Your task to perform on an android device: Clear the cart on costco. Search for beats solo 3 on costco, select the first entry, and add it to the cart. Image 0: 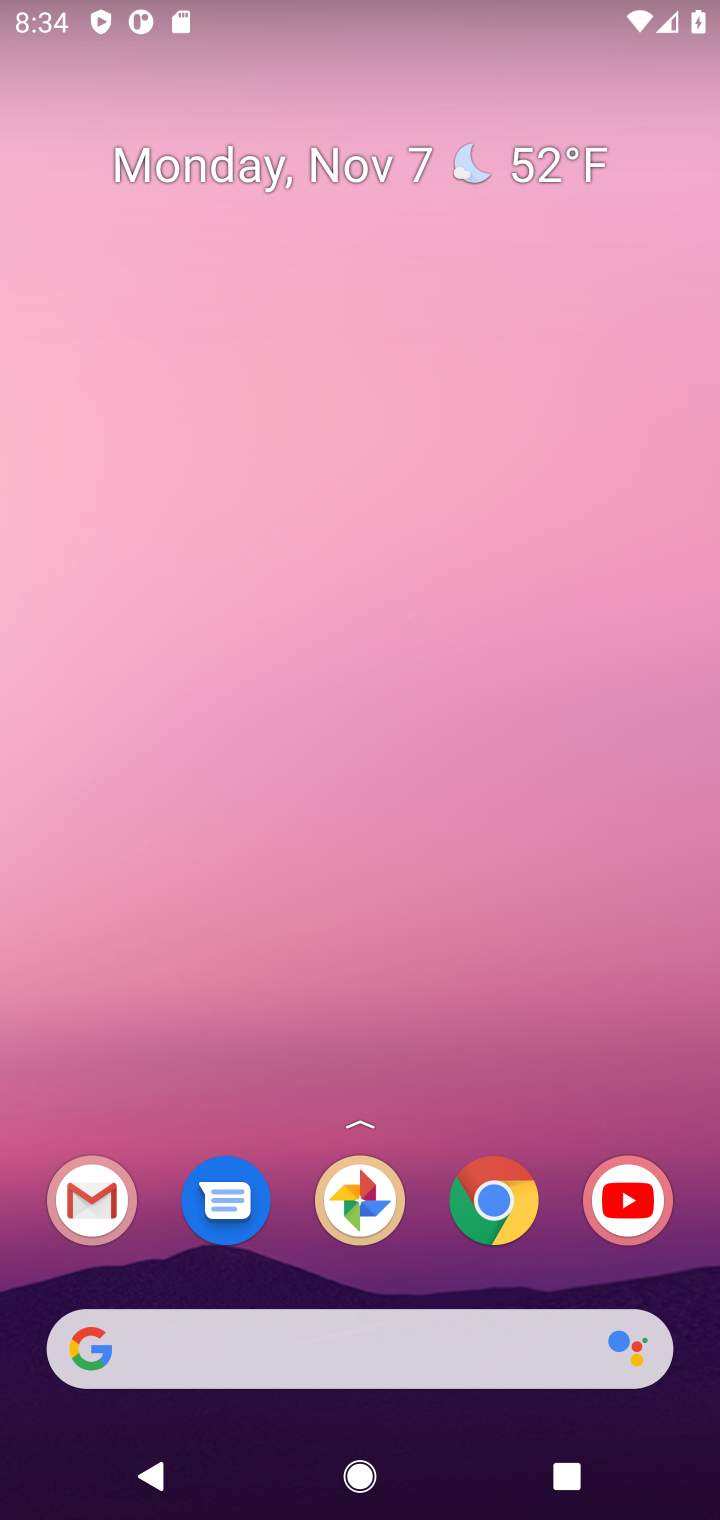
Step 0: click (493, 1208)
Your task to perform on an android device: Clear the cart on costco. Search for beats solo 3 on costco, select the first entry, and add it to the cart. Image 1: 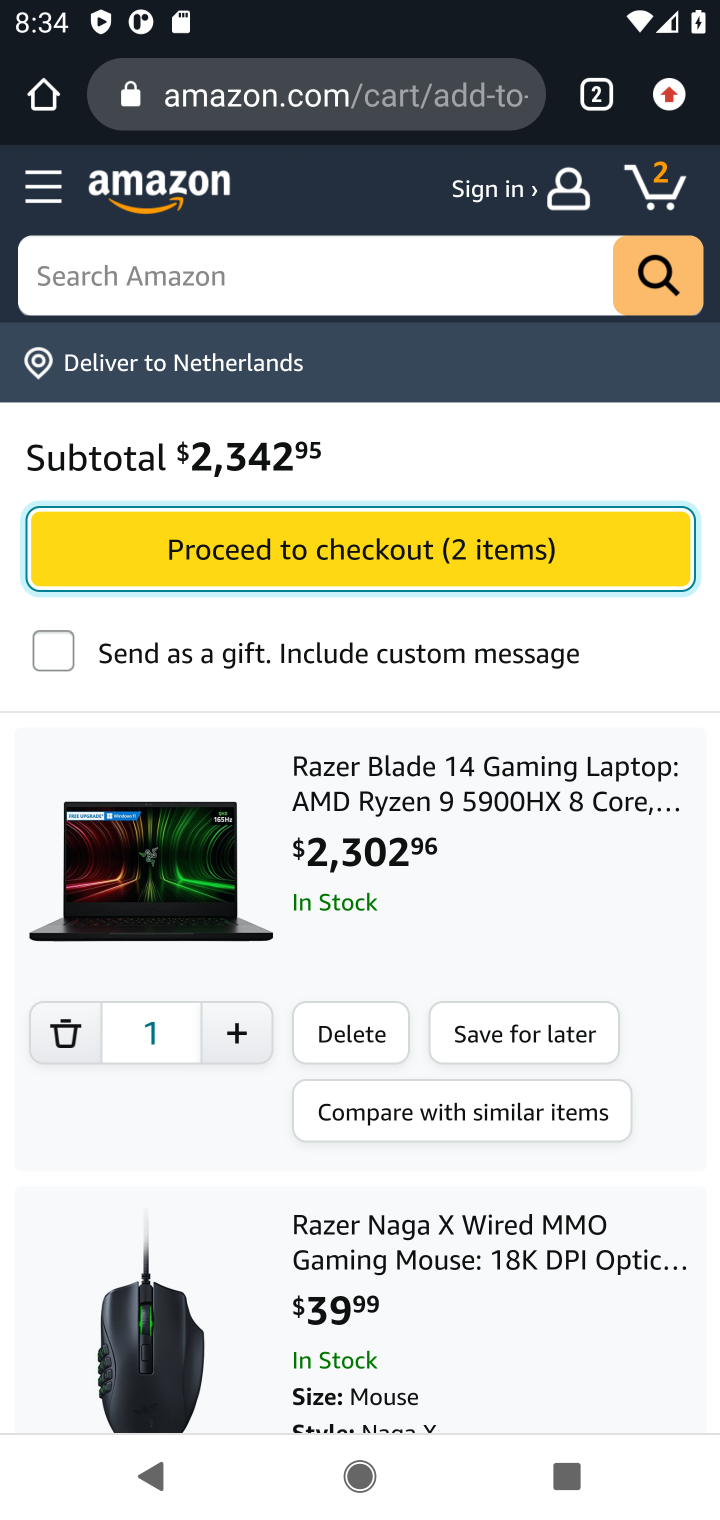
Step 1: click (250, 96)
Your task to perform on an android device: Clear the cart on costco. Search for beats solo 3 on costco, select the first entry, and add it to the cart. Image 2: 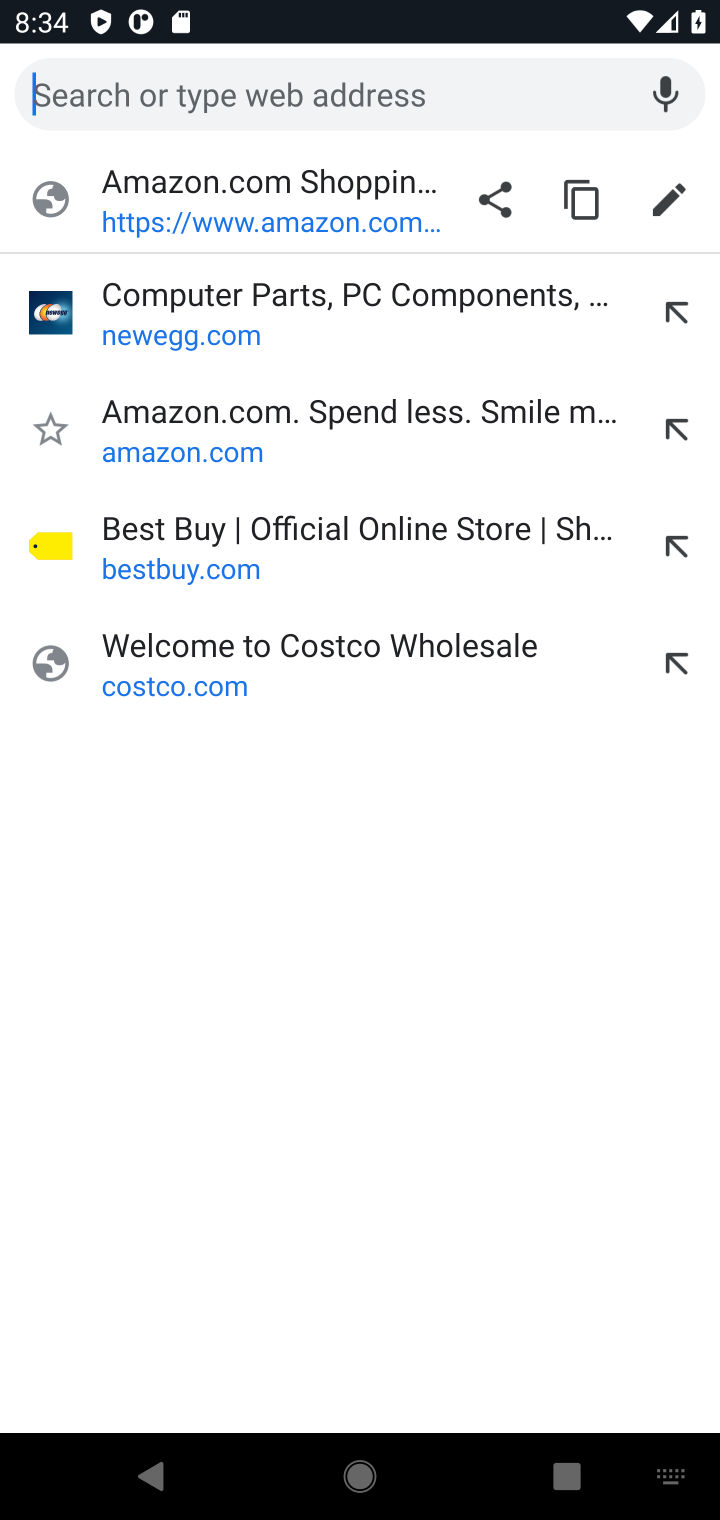
Step 2: type "costco"
Your task to perform on an android device: Clear the cart on costco. Search for beats solo 3 on costco, select the first entry, and add it to the cart. Image 3: 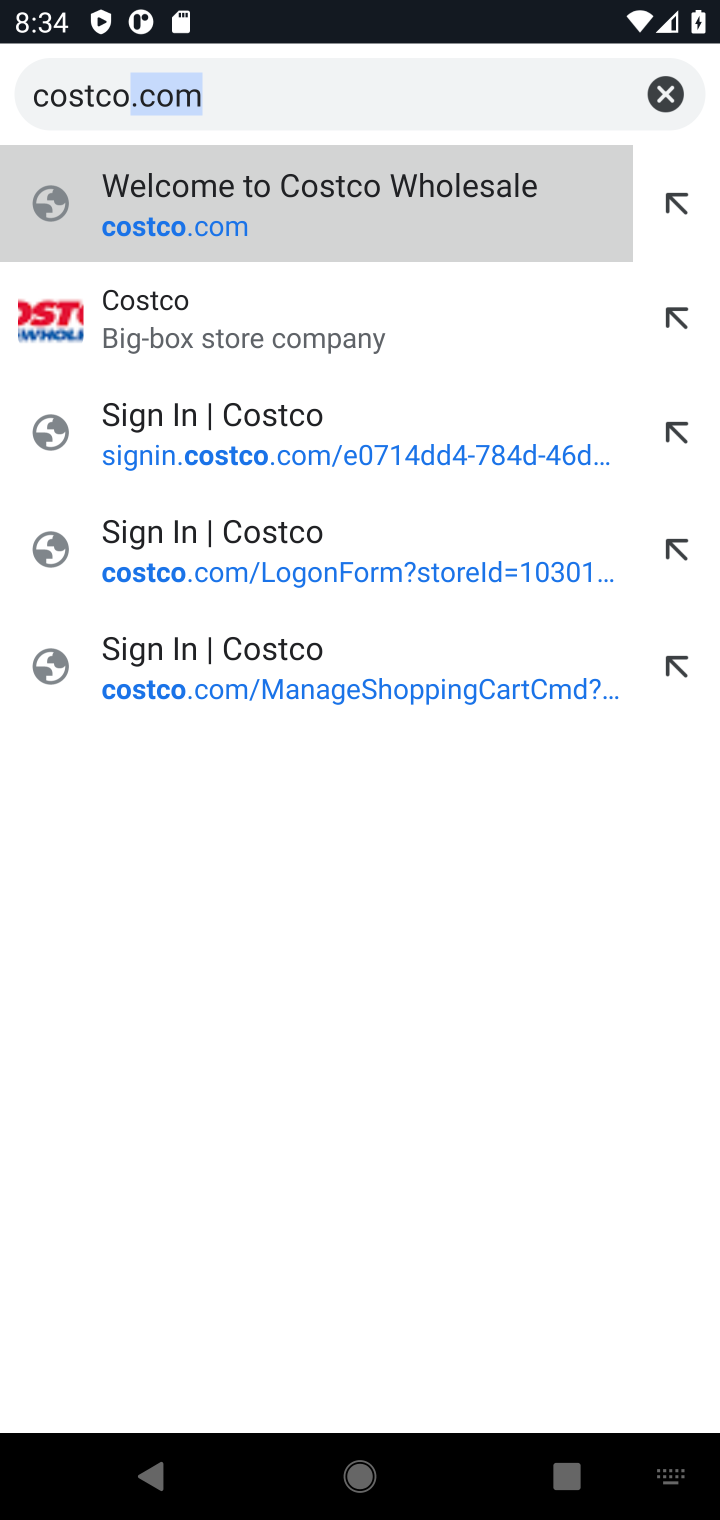
Step 3: press enter
Your task to perform on an android device: Clear the cart on costco. Search for beats solo 3 on costco, select the first entry, and add it to the cart. Image 4: 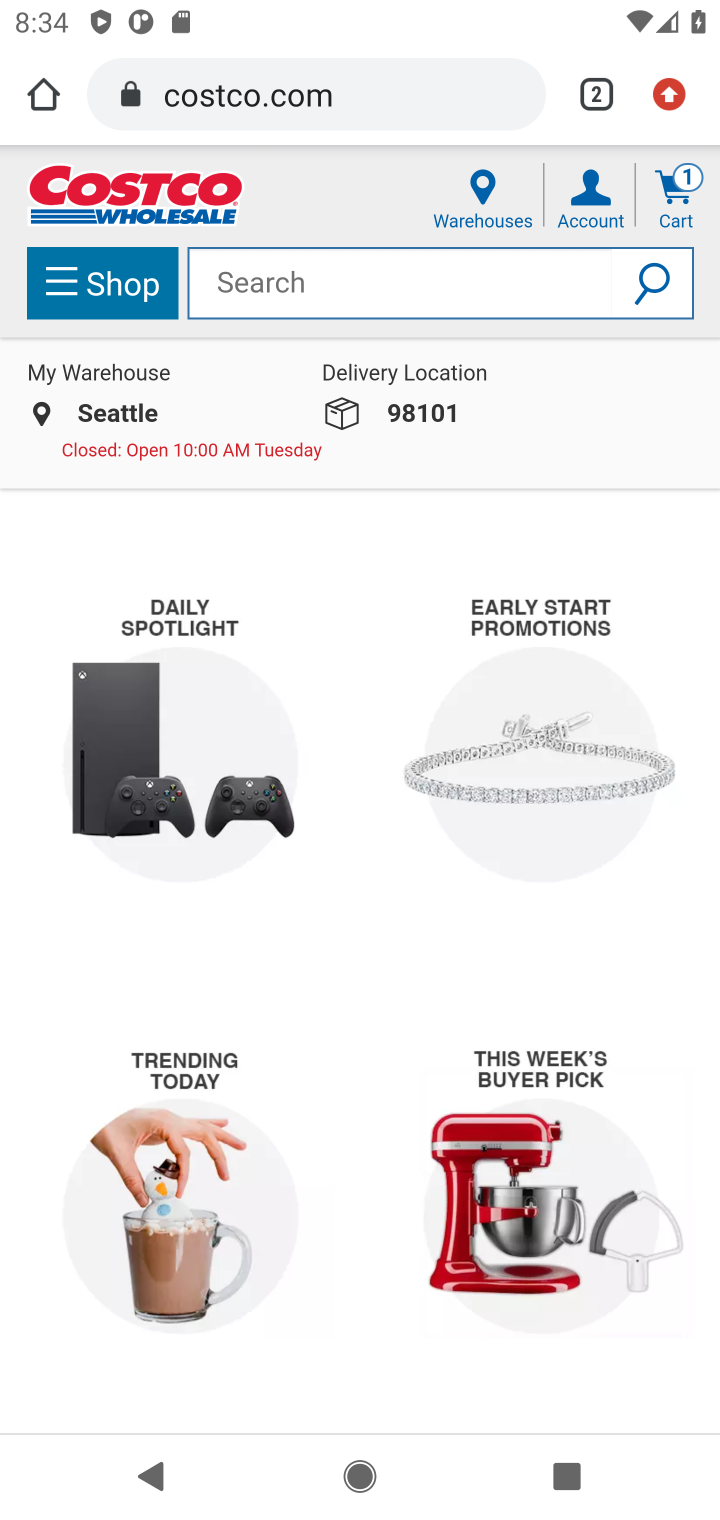
Step 4: click (389, 278)
Your task to perform on an android device: Clear the cart on costco. Search for beats solo 3 on costco, select the first entry, and add it to the cart. Image 5: 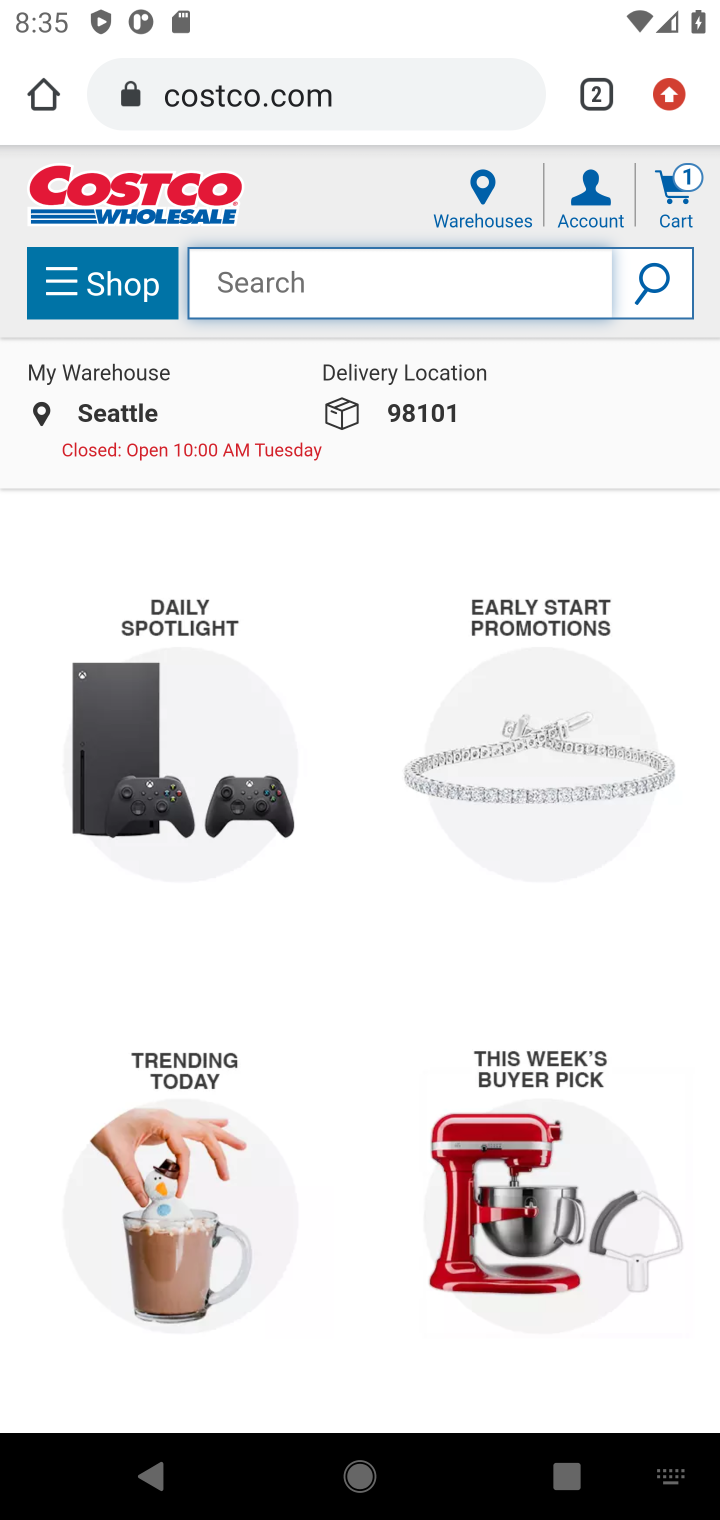
Step 5: type "beats solo 3"
Your task to perform on an android device: Clear the cart on costco. Search for beats solo 3 on costco, select the first entry, and add it to the cart. Image 6: 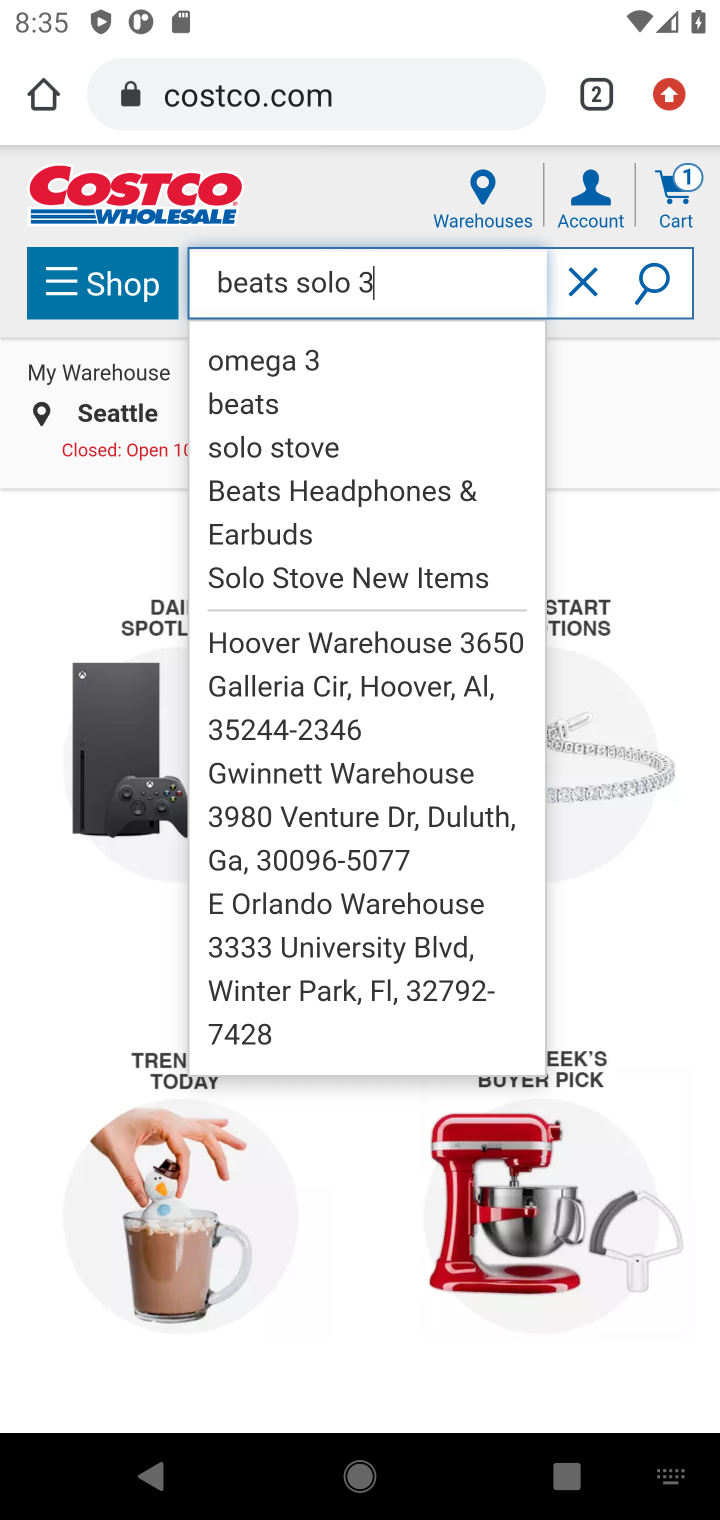
Step 6: press enter
Your task to perform on an android device: Clear the cart on costco. Search for beats solo 3 on costco, select the first entry, and add it to the cart. Image 7: 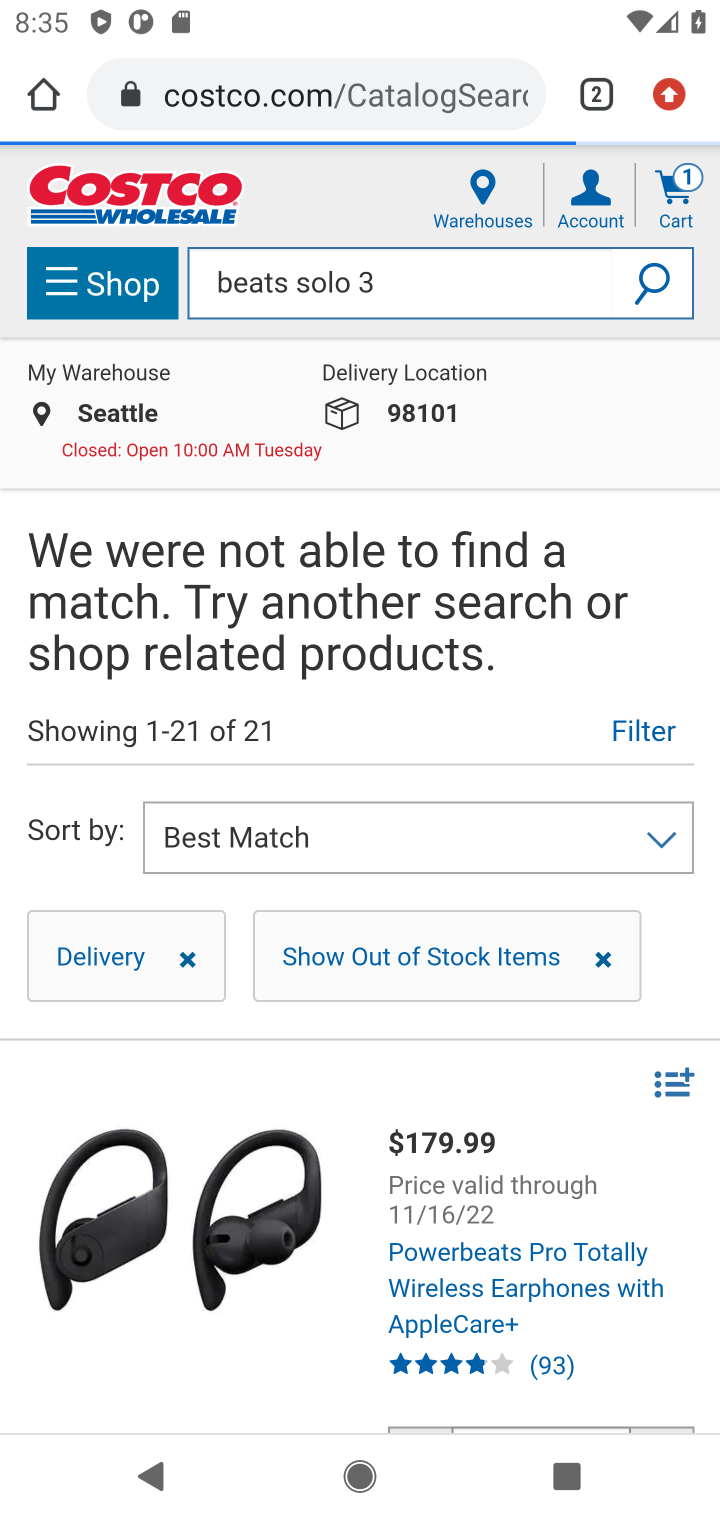
Step 7: drag from (461, 1052) to (448, 582)
Your task to perform on an android device: Clear the cart on costco. Search for beats solo 3 on costco, select the first entry, and add it to the cart. Image 8: 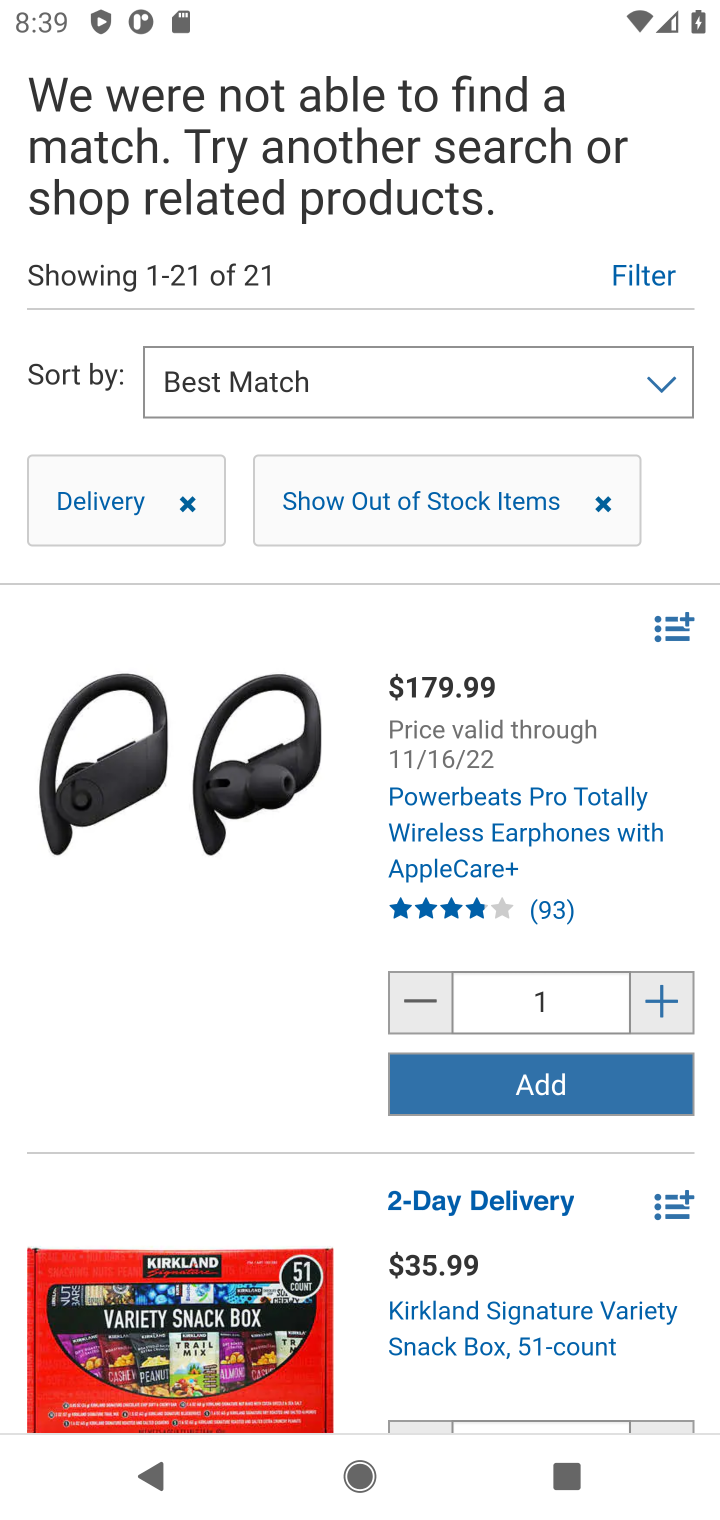
Step 8: drag from (432, 638) to (350, 753)
Your task to perform on an android device: Clear the cart on costco. Search for beats solo 3 on costco, select the first entry, and add it to the cart. Image 9: 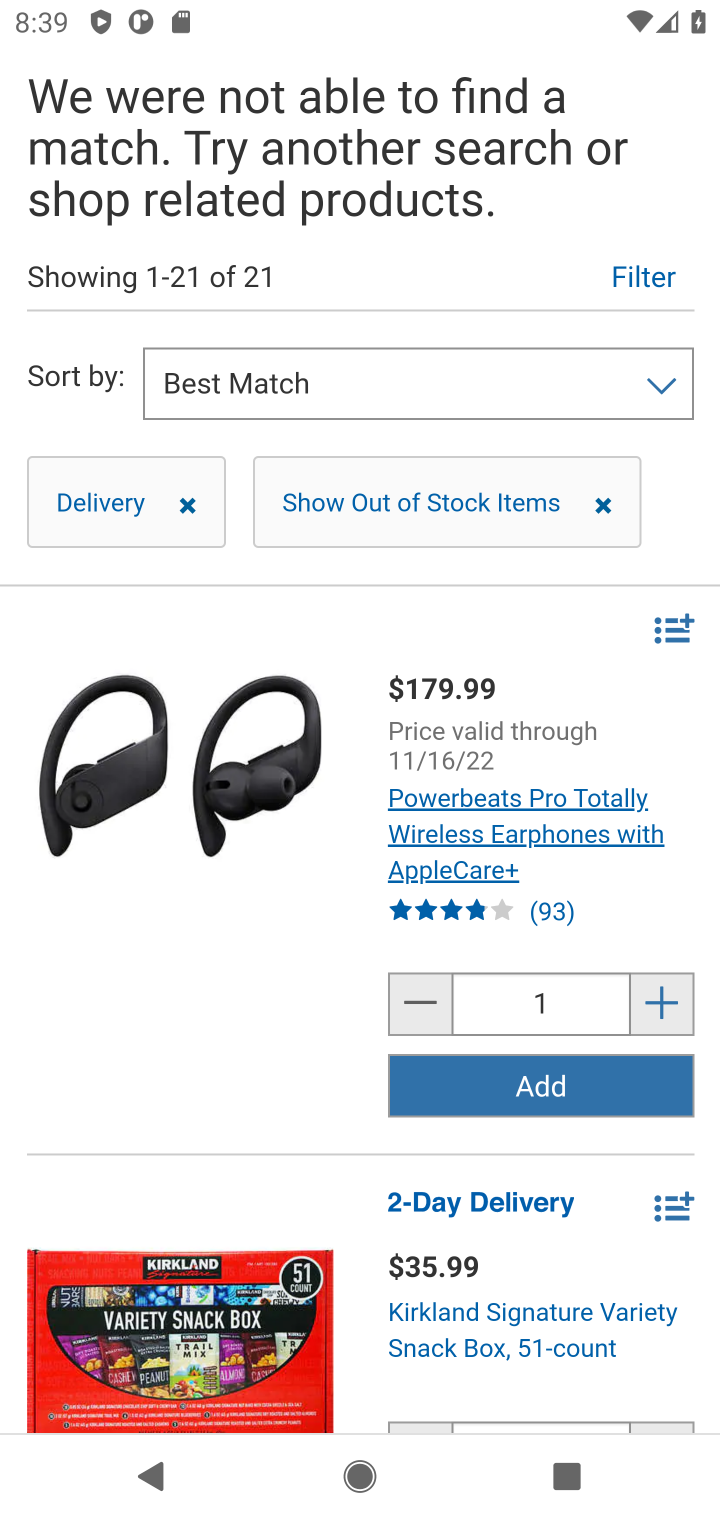
Step 9: click (500, 1103)
Your task to perform on an android device: Clear the cart on costco. Search for beats solo 3 on costco, select the first entry, and add it to the cart. Image 10: 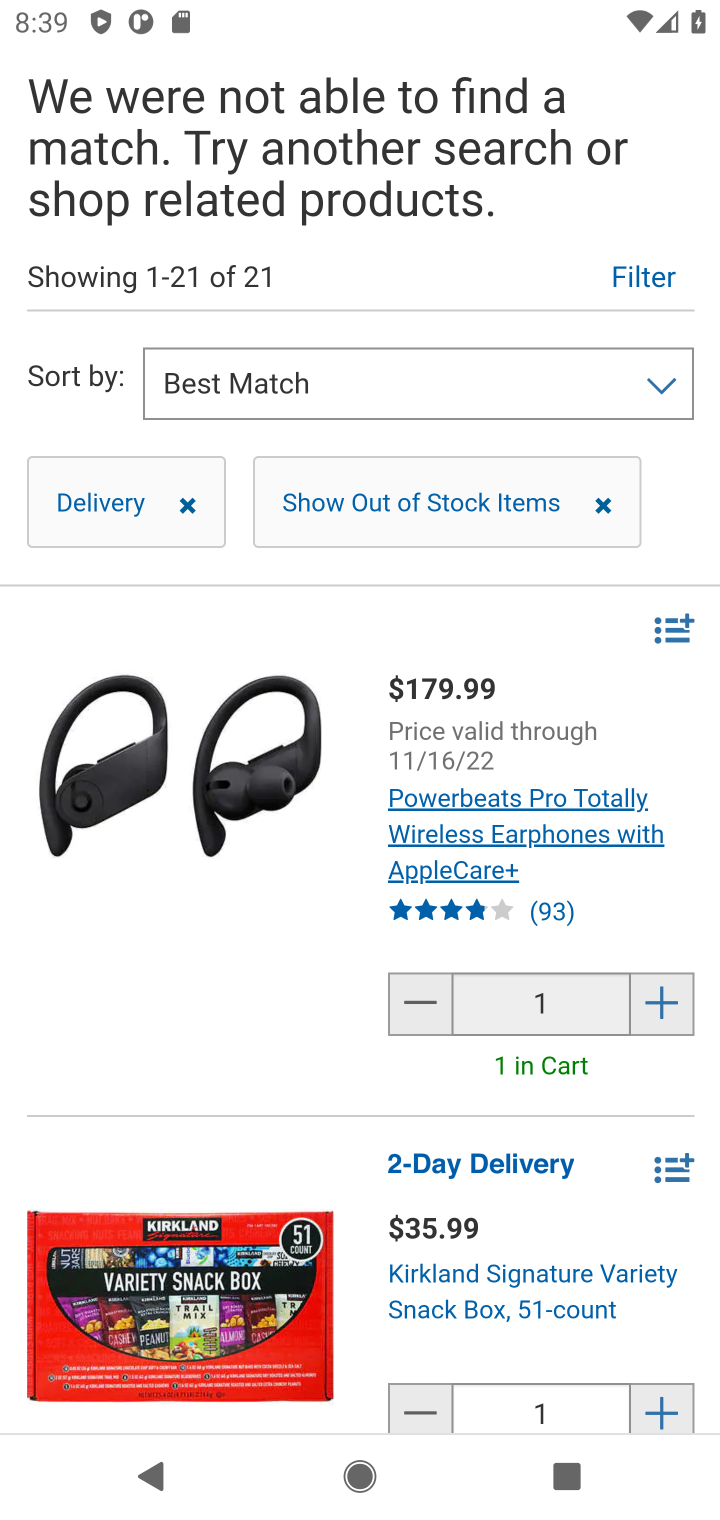
Step 10: drag from (437, 571) to (439, 1454)
Your task to perform on an android device: Clear the cart on costco. Search for beats solo 3 on costco, select the first entry, and add it to the cart. Image 11: 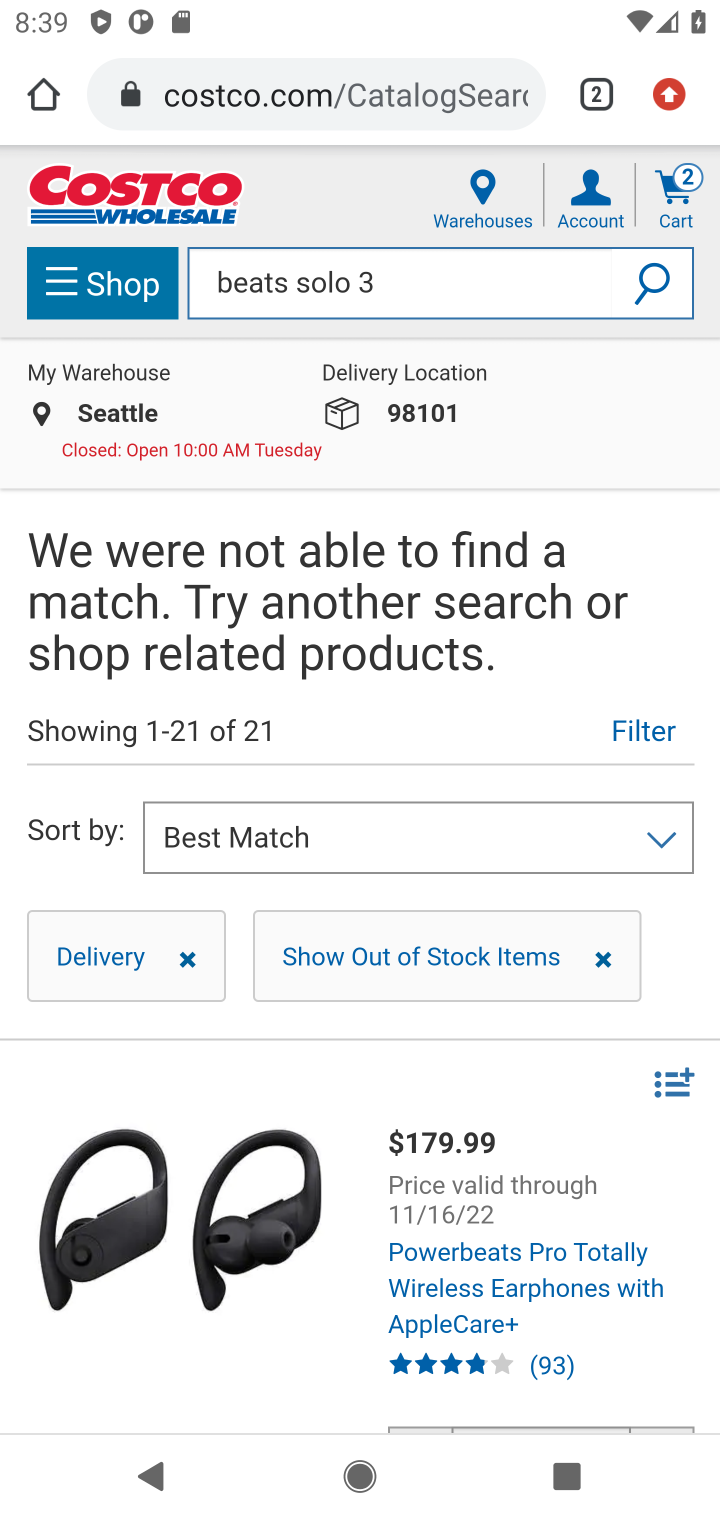
Step 11: click (666, 209)
Your task to perform on an android device: Clear the cart on costco. Search for beats solo 3 on costco, select the first entry, and add it to the cart. Image 12: 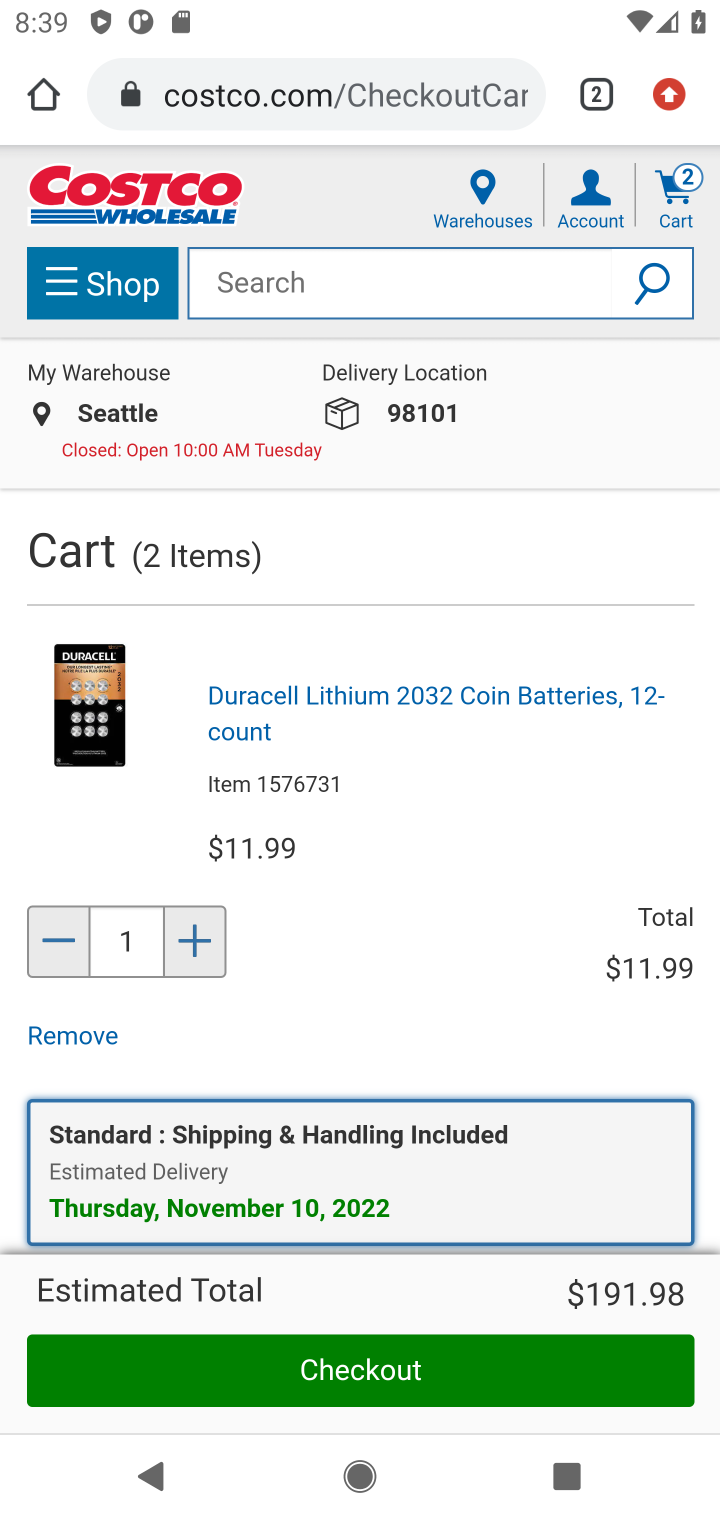
Step 12: task complete